Your task to perform on an android device: What's a good restaurant in Houston? Image 0: 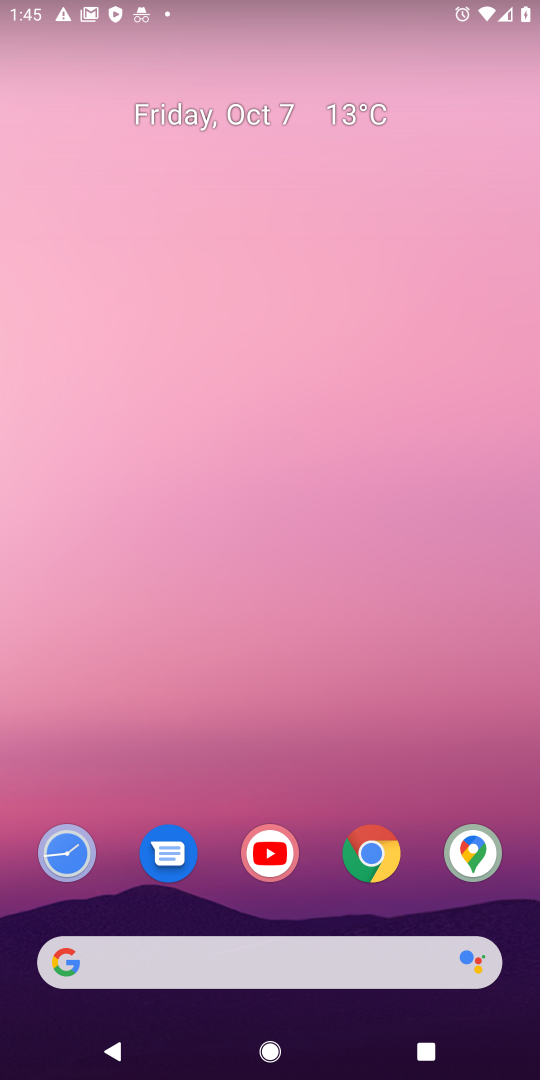
Step 0: click (447, 876)
Your task to perform on an android device: What's a good restaurant in Houston? Image 1: 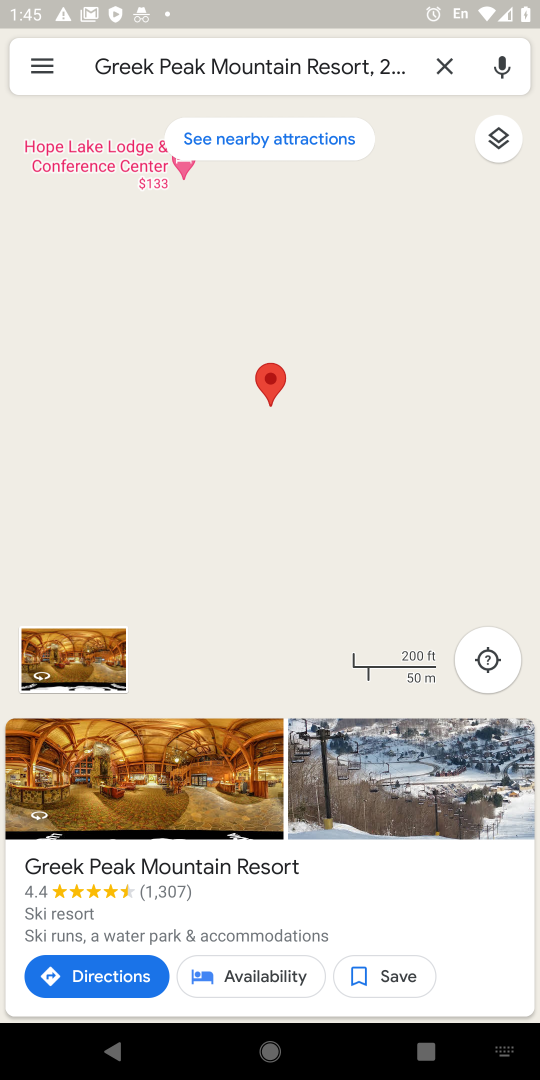
Step 1: click (427, 78)
Your task to perform on an android device: What's a good restaurant in Houston? Image 2: 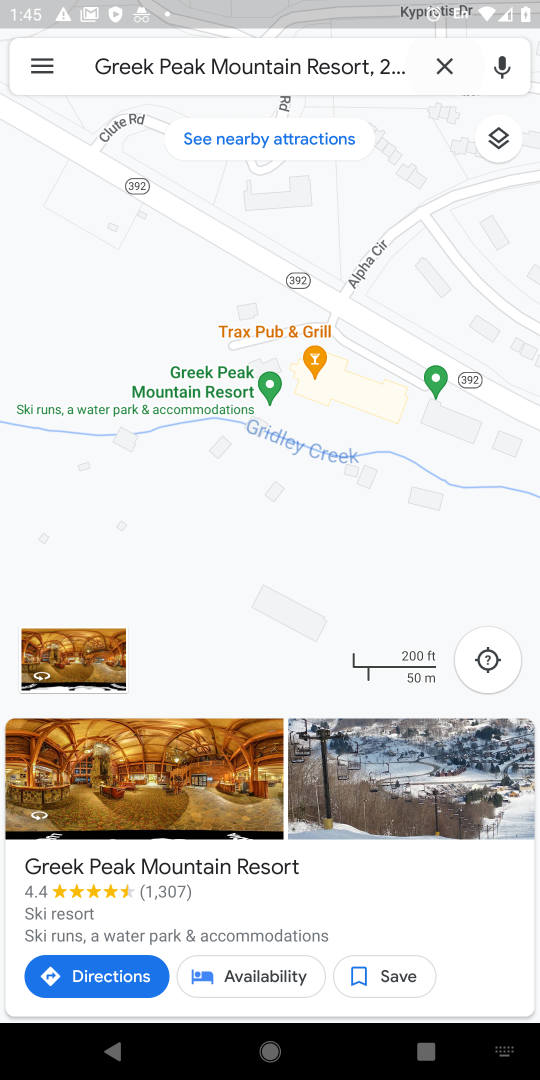
Step 2: type ""
Your task to perform on an android device: What's a good restaurant in Houston? Image 3: 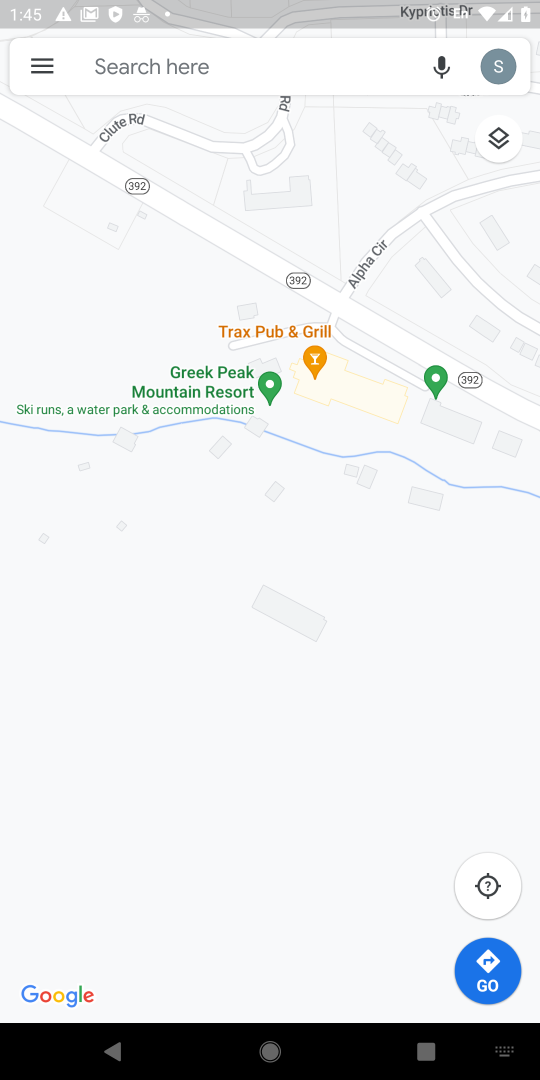
Step 3: click (297, 65)
Your task to perform on an android device: What's a good restaurant in Houston? Image 4: 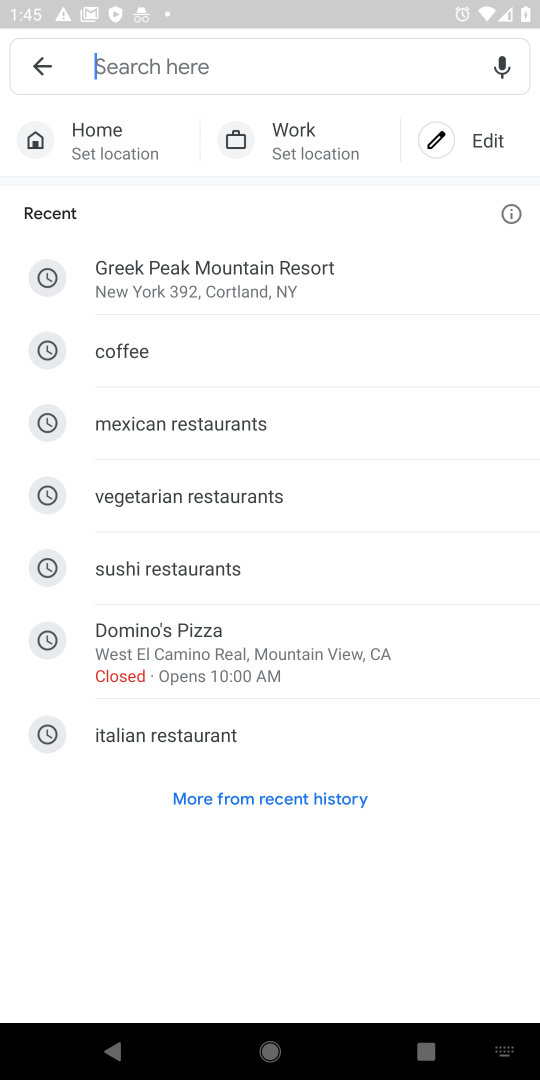
Step 4: type "hutson"
Your task to perform on an android device: What's a good restaurant in Houston? Image 5: 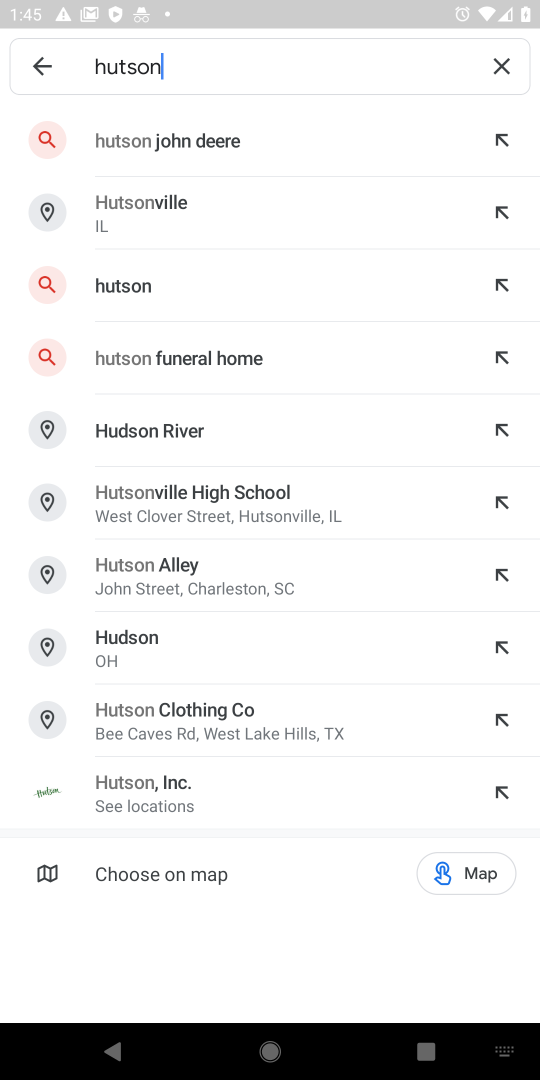
Step 5: click (246, 313)
Your task to perform on an android device: What's a good restaurant in Houston? Image 6: 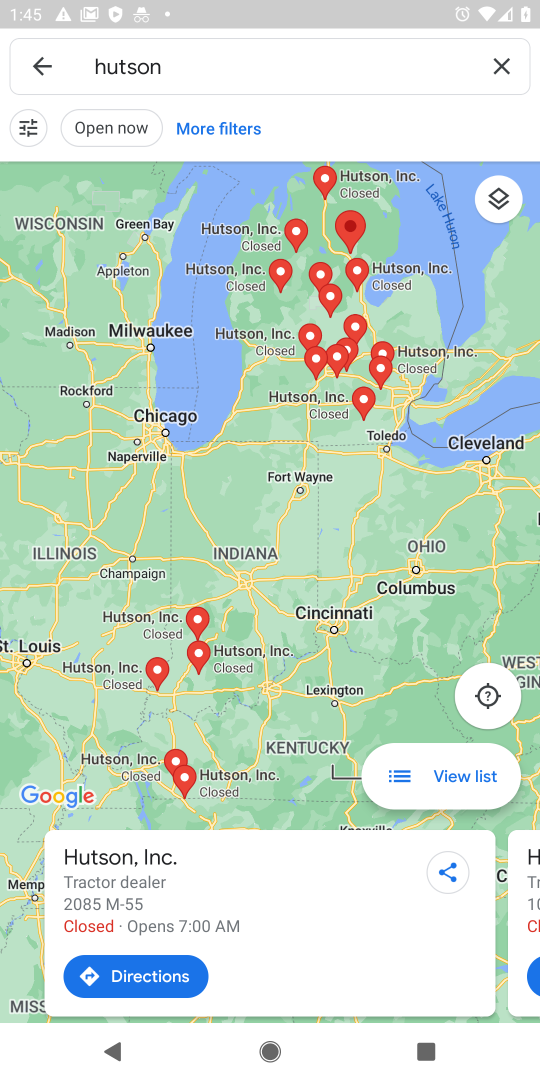
Step 6: task complete